Your task to perform on an android device: Search for pizza restaurants on Maps Image 0: 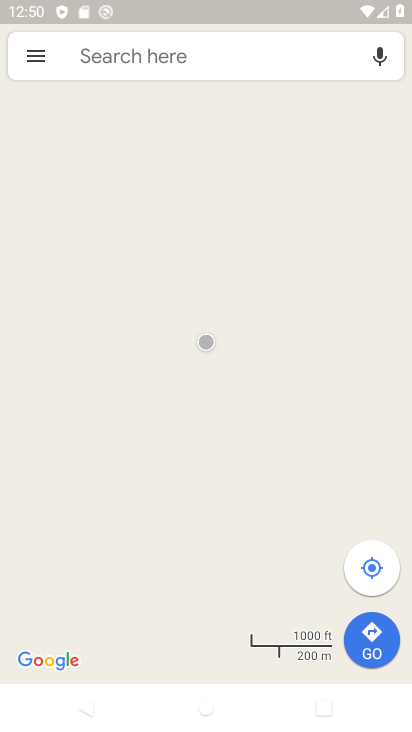
Step 0: press back button
Your task to perform on an android device: Search for pizza restaurants on Maps Image 1: 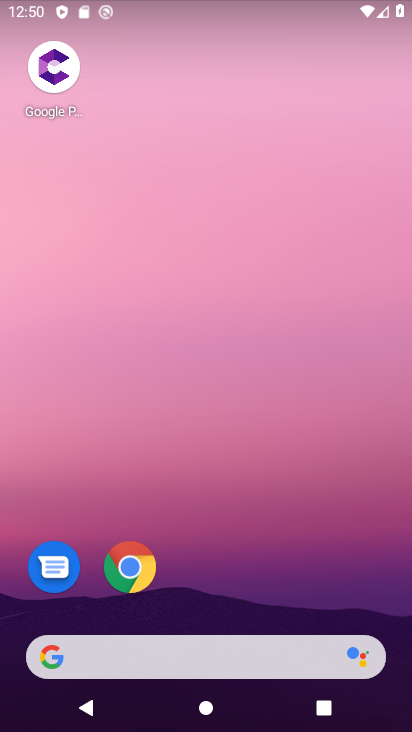
Step 1: drag from (185, 640) to (213, 489)
Your task to perform on an android device: Search for pizza restaurants on Maps Image 2: 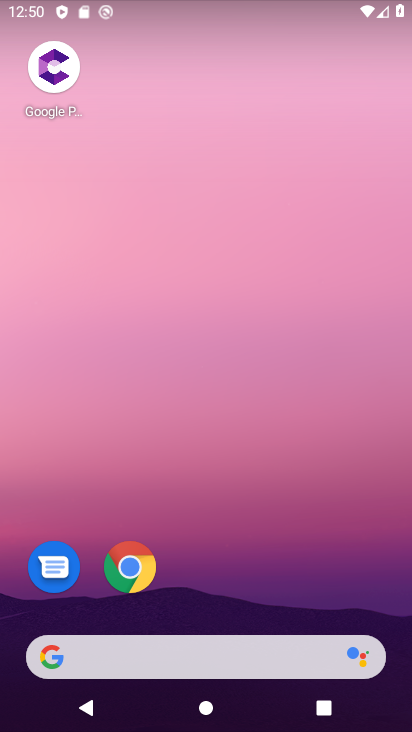
Step 2: drag from (237, 579) to (311, 184)
Your task to perform on an android device: Search for pizza restaurants on Maps Image 3: 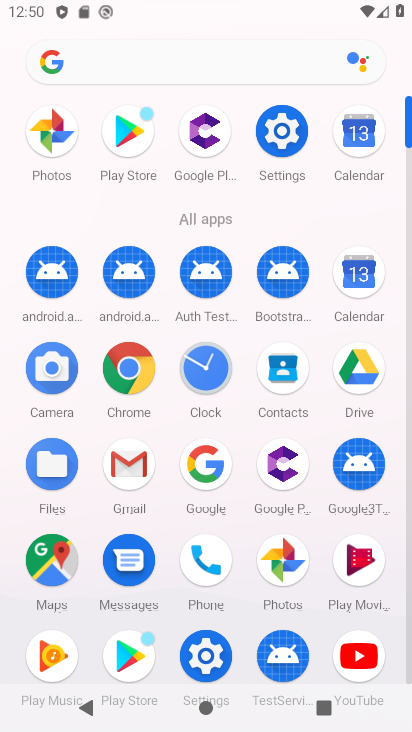
Step 3: click (34, 562)
Your task to perform on an android device: Search for pizza restaurants on Maps Image 4: 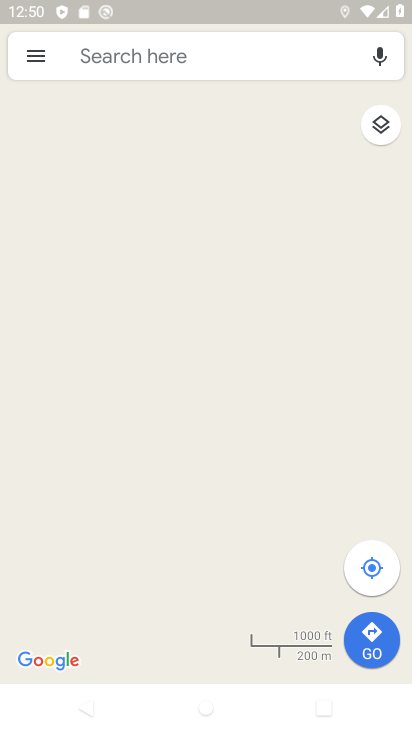
Step 4: click (134, 44)
Your task to perform on an android device: Search for pizza restaurants on Maps Image 5: 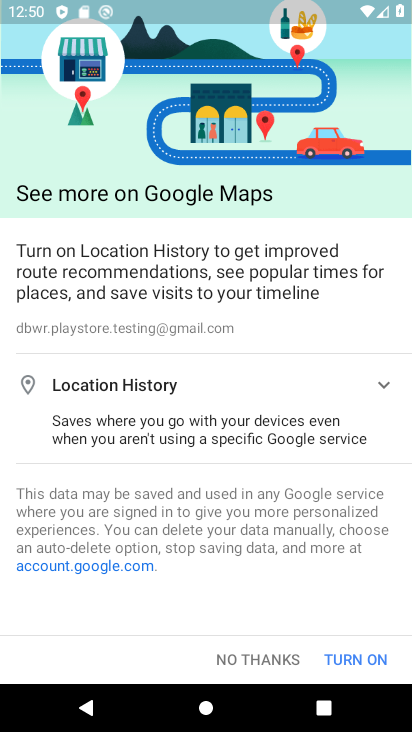
Step 5: click (257, 657)
Your task to perform on an android device: Search for pizza restaurants on Maps Image 6: 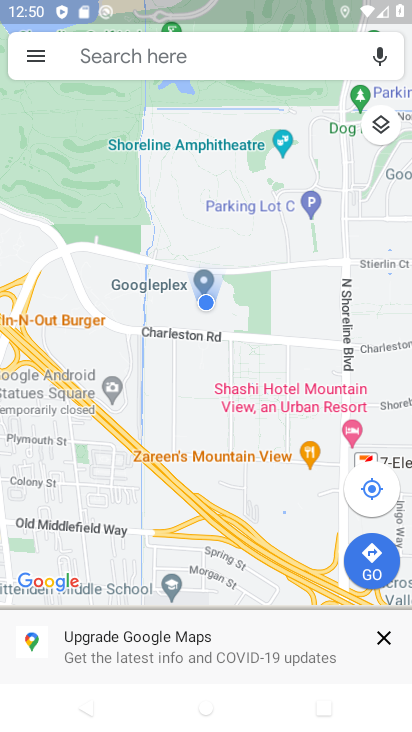
Step 6: click (205, 68)
Your task to perform on an android device: Search for pizza restaurants on Maps Image 7: 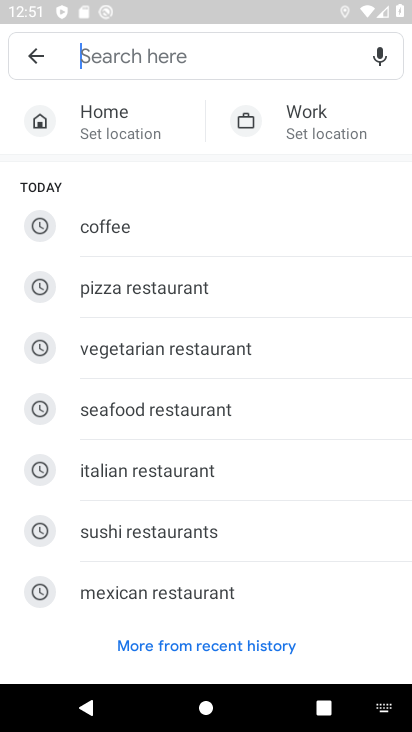
Step 7: type "Pizza restaurant "
Your task to perform on an android device: Search for pizza restaurants on Maps Image 8: 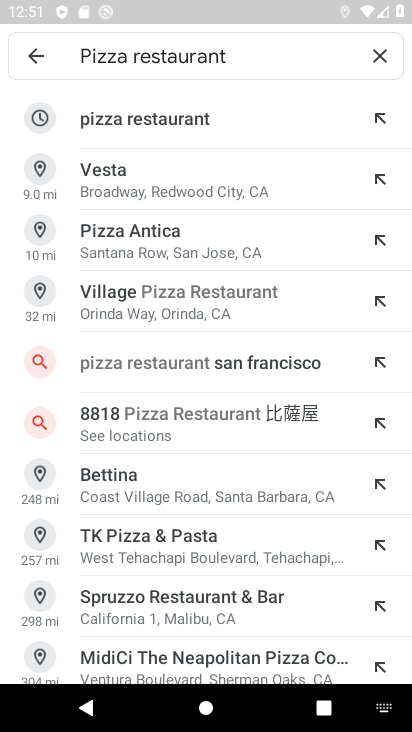
Step 8: click (138, 137)
Your task to perform on an android device: Search for pizza restaurants on Maps Image 9: 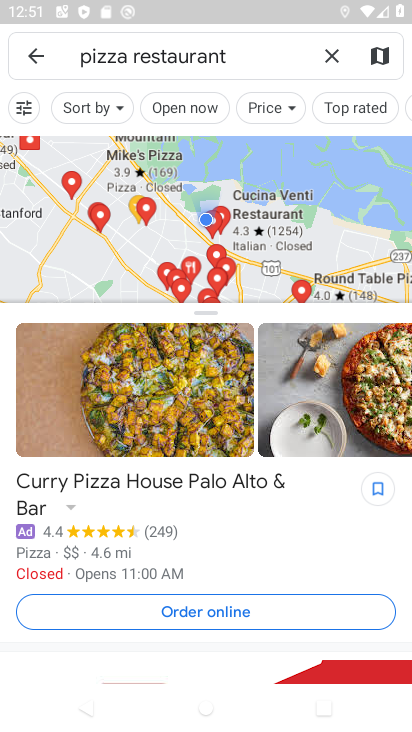
Step 9: task complete